Your task to perform on an android device: Open Youtube and go to "Your channel" Image 0: 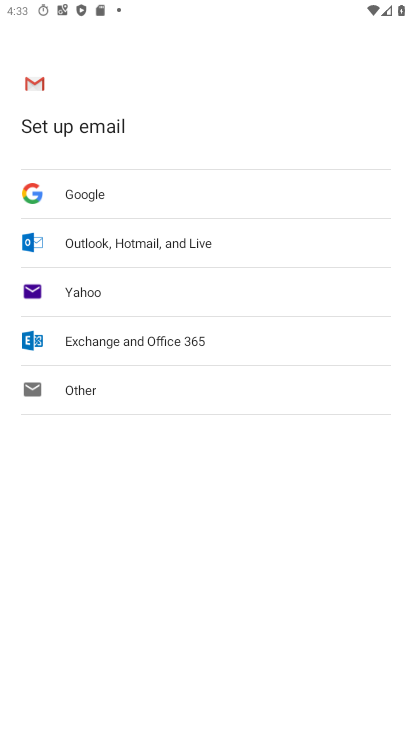
Step 0: press home button
Your task to perform on an android device: Open Youtube and go to "Your channel" Image 1: 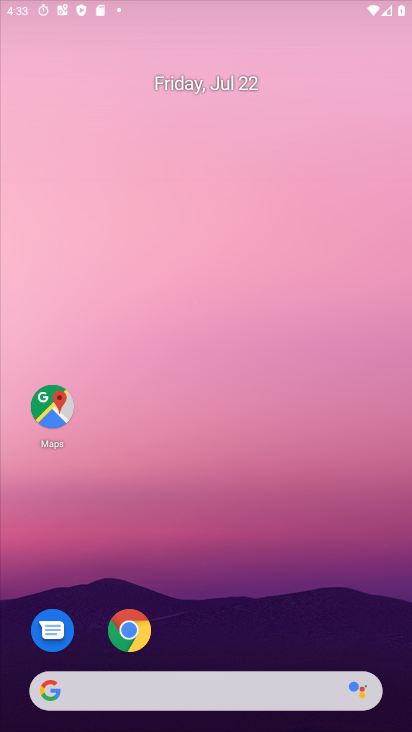
Step 1: drag from (270, 726) to (266, 116)
Your task to perform on an android device: Open Youtube and go to "Your channel" Image 2: 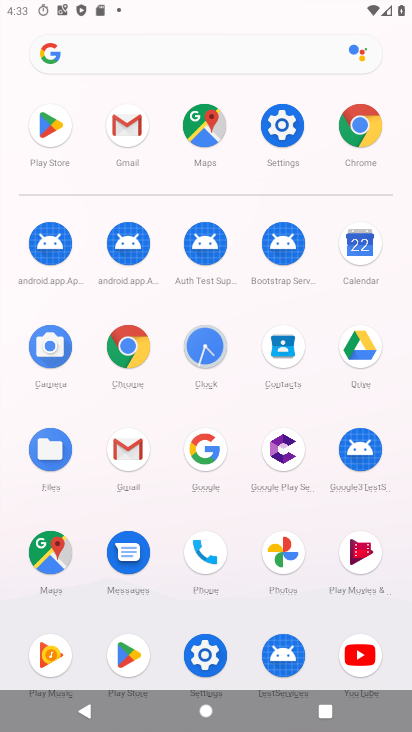
Step 2: click (351, 660)
Your task to perform on an android device: Open Youtube and go to "Your channel" Image 3: 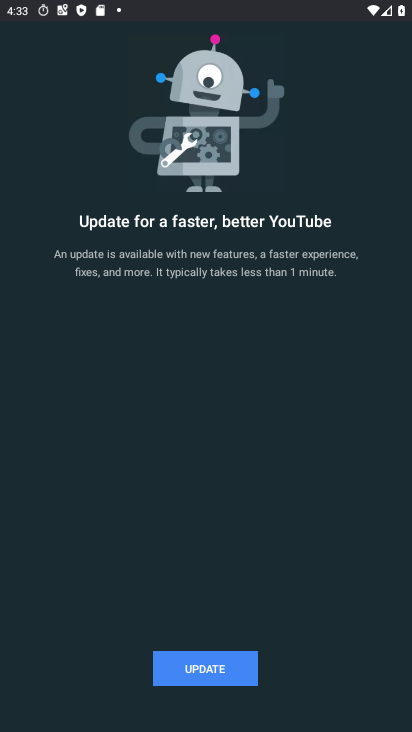
Step 3: click (230, 663)
Your task to perform on an android device: Open Youtube and go to "Your channel" Image 4: 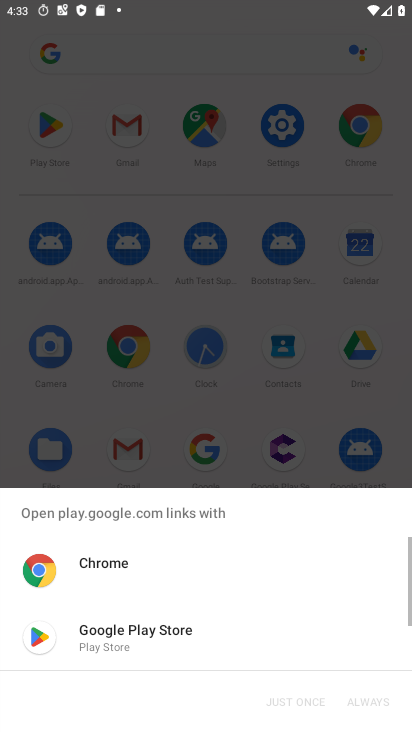
Step 4: click (136, 649)
Your task to perform on an android device: Open Youtube and go to "Your channel" Image 5: 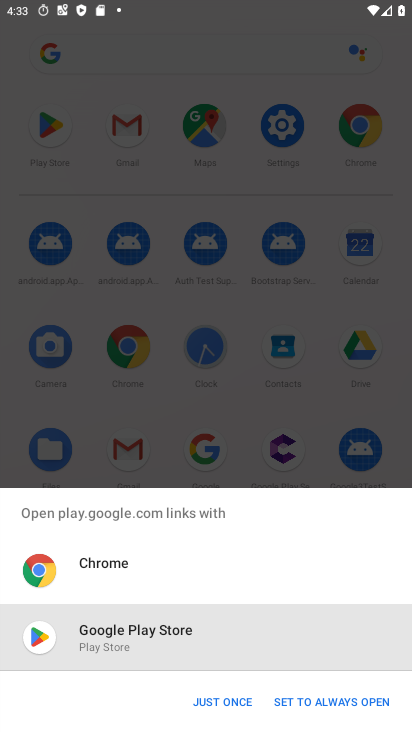
Step 5: click (221, 700)
Your task to perform on an android device: Open Youtube and go to "Your channel" Image 6: 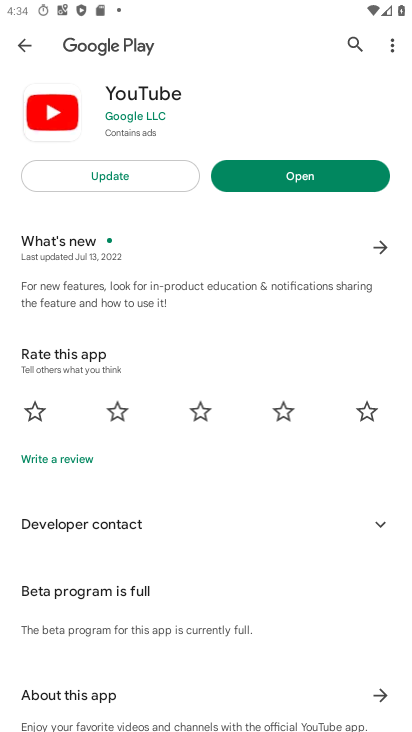
Step 6: click (155, 171)
Your task to perform on an android device: Open Youtube and go to "Your channel" Image 7: 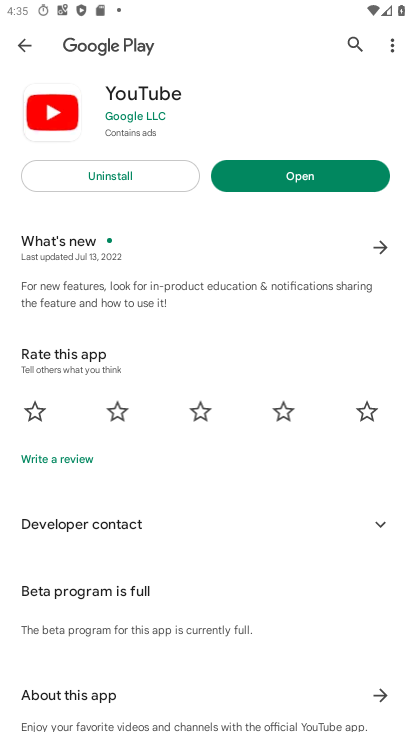
Step 7: click (291, 170)
Your task to perform on an android device: Open Youtube and go to "Your channel" Image 8: 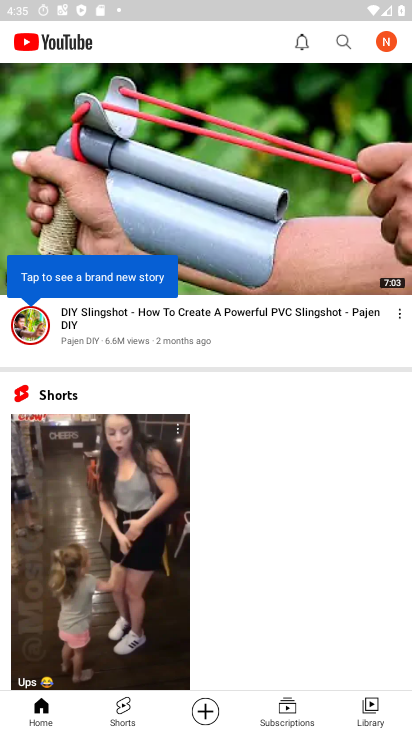
Step 8: click (376, 40)
Your task to perform on an android device: Open Youtube and go to "Your channel" Image 9: 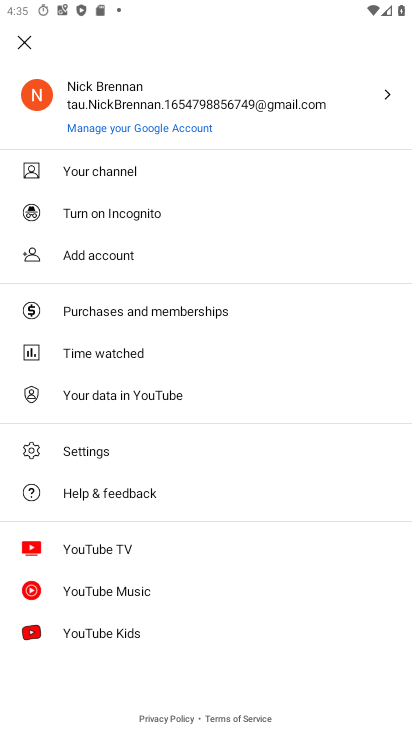
Step 9: click (115, 180)
Your task to perform on an android device: Open Youtube and go to "Your channel" Image 10: 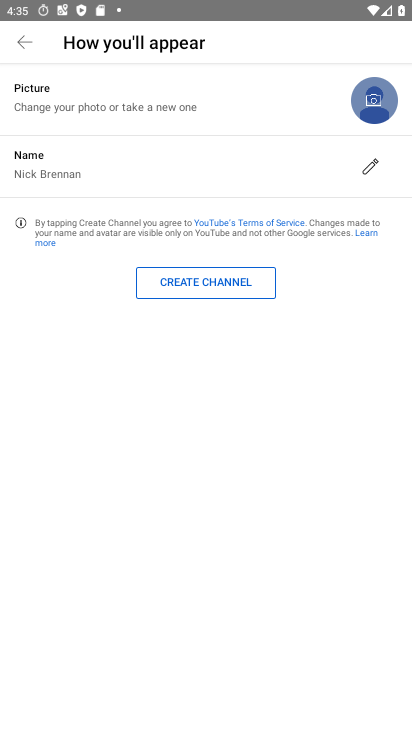
Step 10: task complete